Your task to perform on an android device: View the shopping cart on costco.com. Image 0: 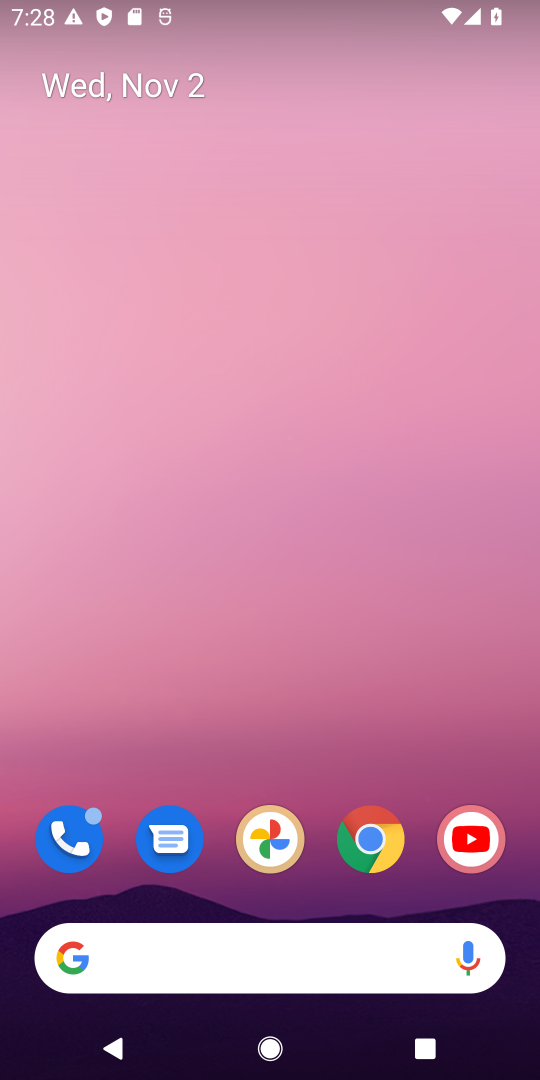
Step 0: click (370, 837)
Your task to perform on an android device: View the shopping cart on costco.com. Image 1: 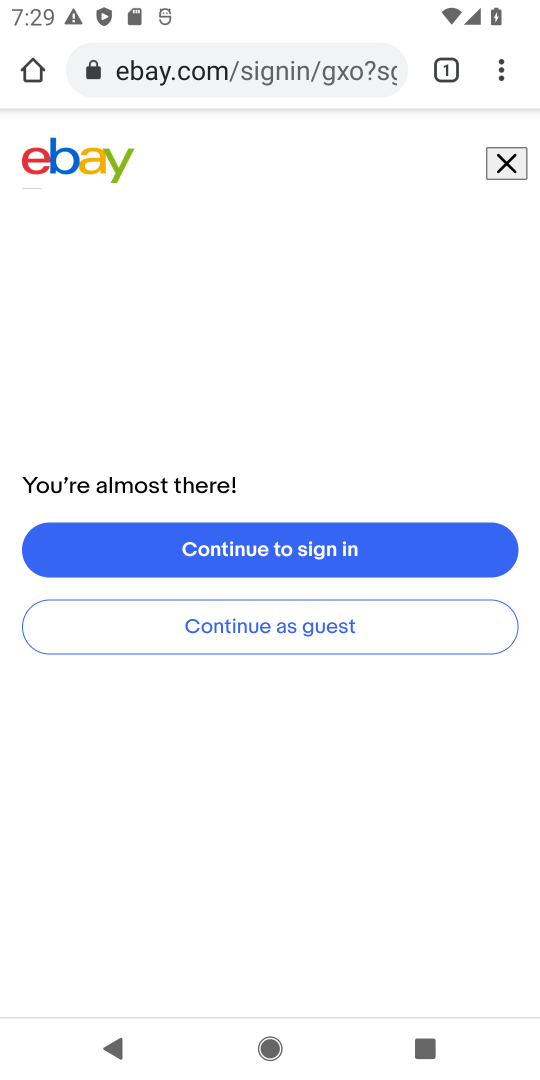
Step 1: press home button
Your task to perform on an android device: View the shopping cart on costco.com. Image 2: 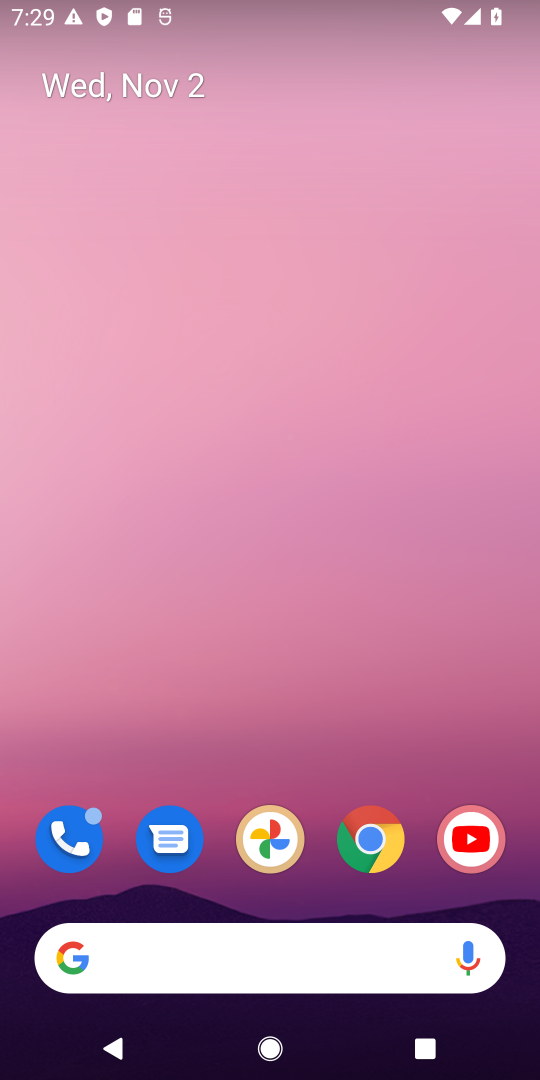
Step 2: click (370, 847)
Your task to perform on an android device: View the shopping cart on costco.com. Image 3: 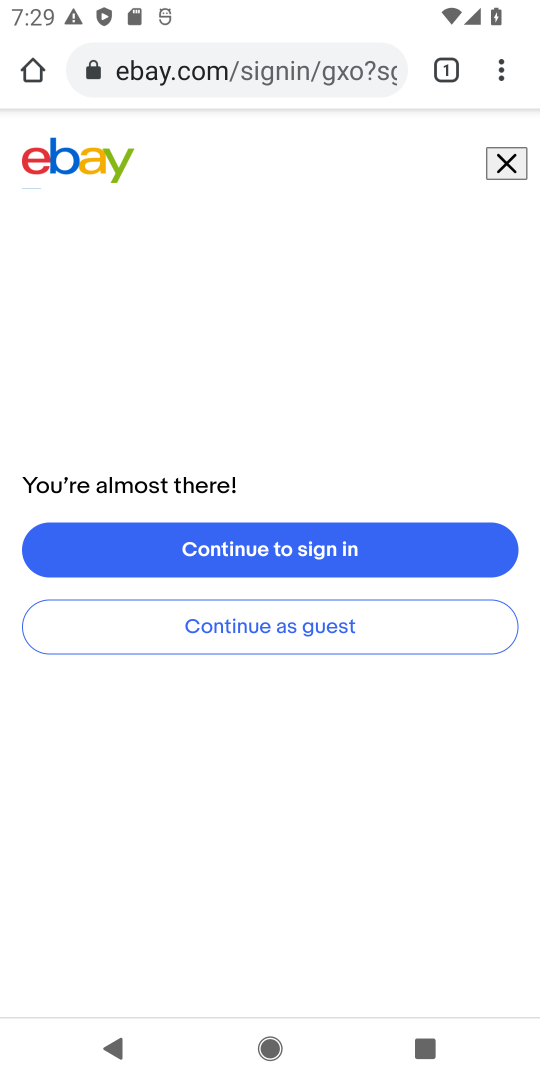
Step 3: click (303, 68)
Your task to perform on an android device: View the shopping cart on costco.com. Image 4: 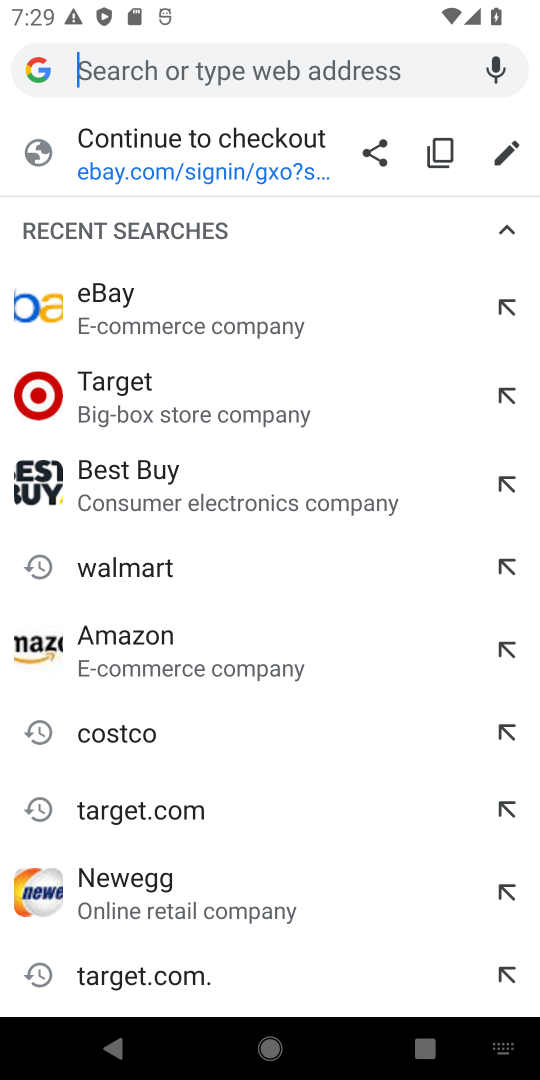
Step 4: type "costco.com"
Your task to perform on an android device: View the shopping cart on costco.com. Image 5: 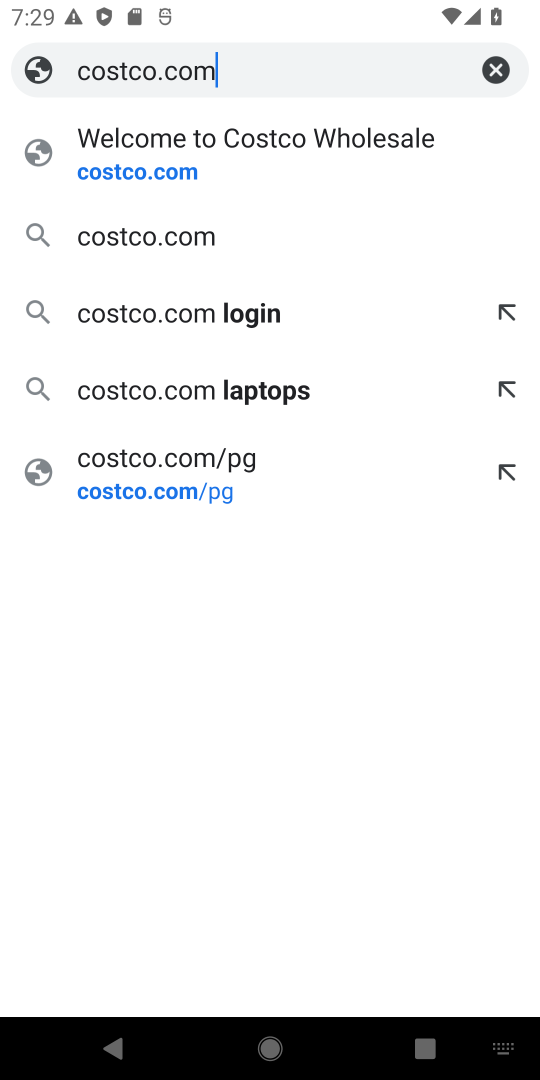
Step 5: click (182, 237)
Your task to perform on an android device: View the shopping cart on costco.com. Image 6: 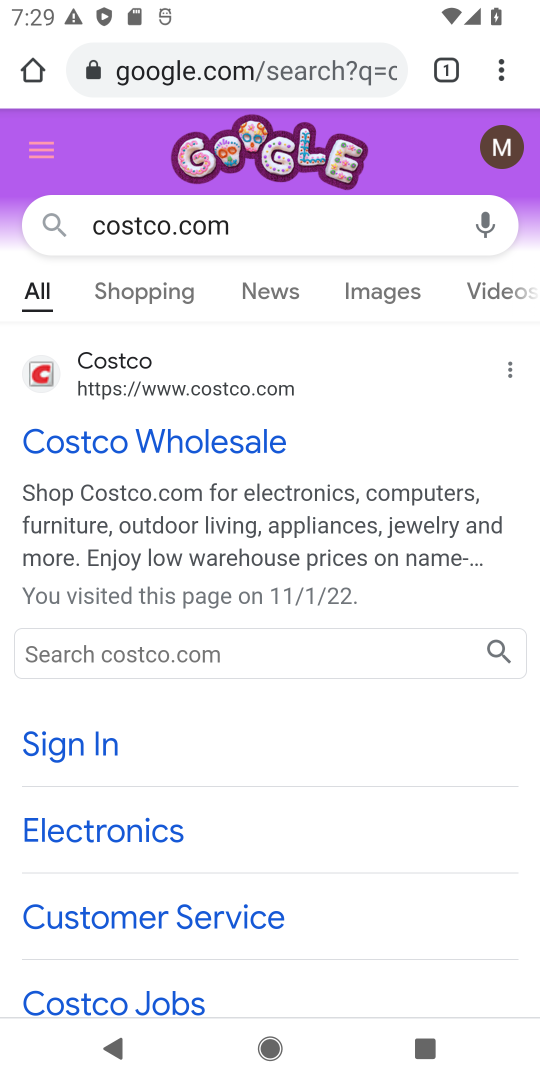
Step 6: click (211, 420)
Your task to perform on an android device: View the shopping cart on costco.com. Image 7: 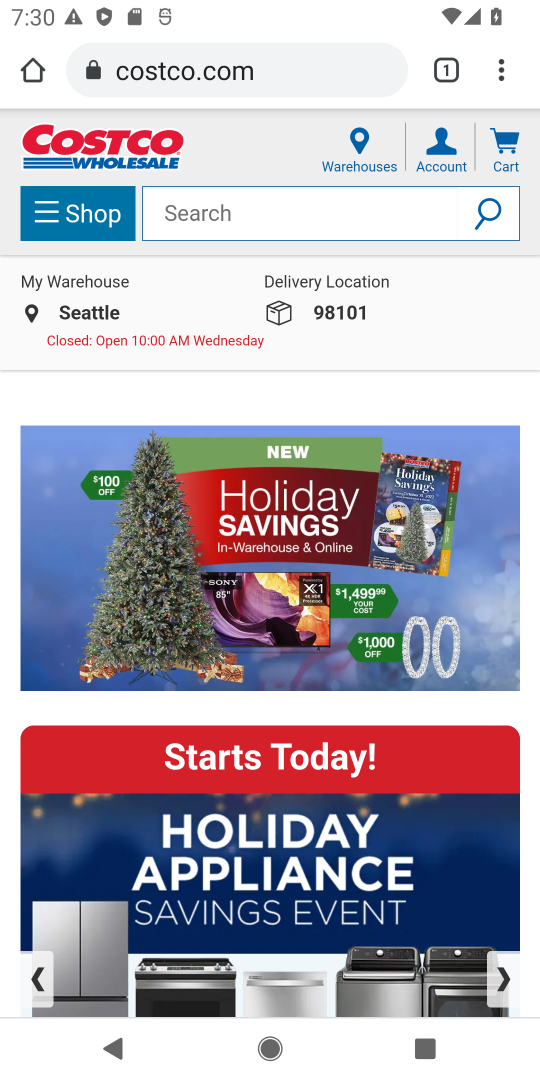
Step 7: click (510, 140)
Your task to perform on an android device: View the shopping cart on costco.com. Image 8: 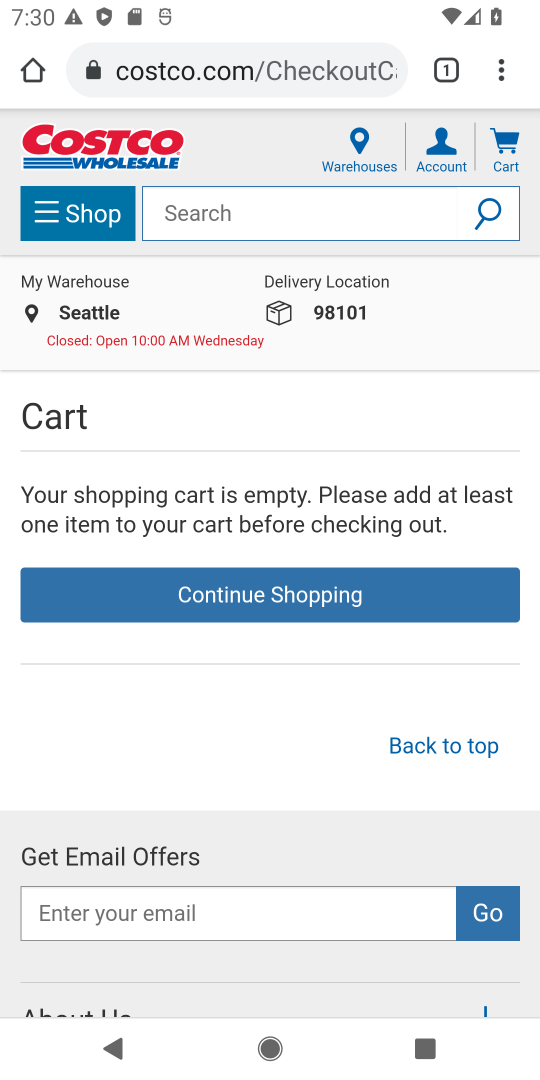
Step 8: task complete